Your task to perform on an android device: add a label to a message in the gmail app Image 0: 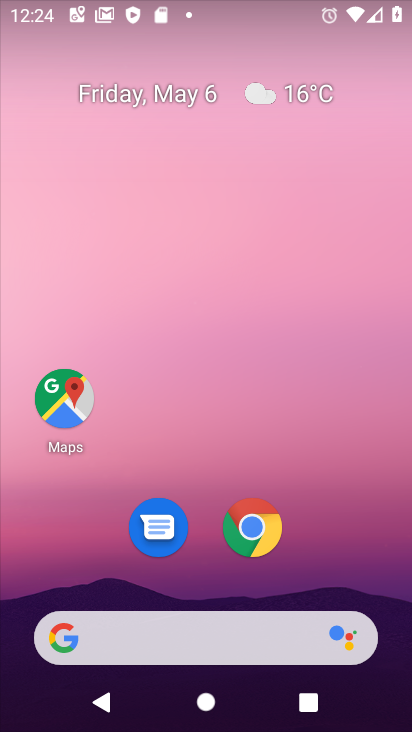
Step 0: drag from (337, 511) to (54, 136)
Your task to perform on an android device: add a label to a message in the gmail app Image 1: 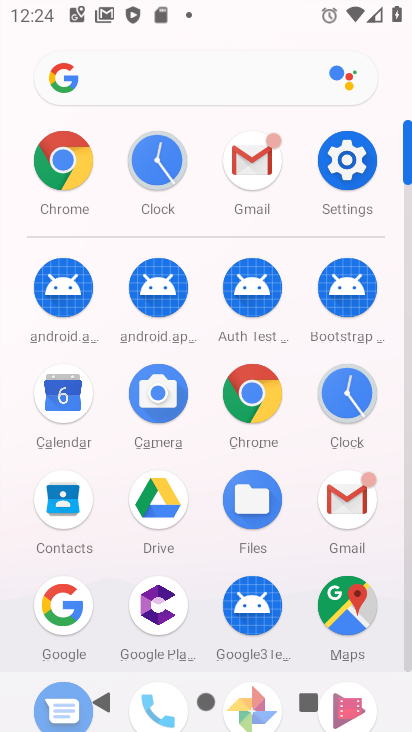
Step 1: click (354, 498)
Your task to perform on an android device: add a label to a message in the gmail app Image 2: 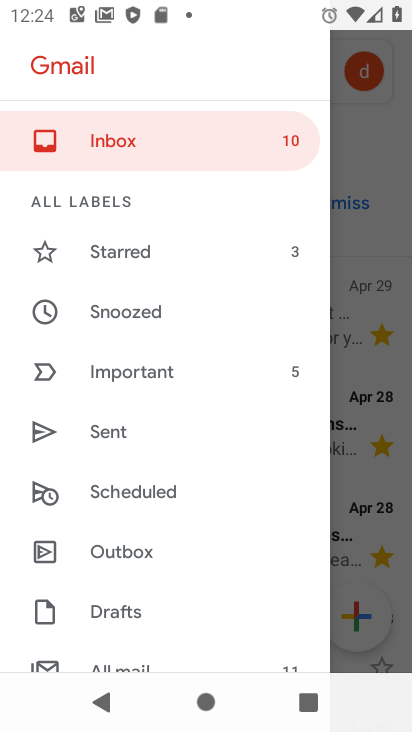
Step 2: click (366, 355)
Your task to perform on an android device: add a label to a message in the gmail app Image 3: 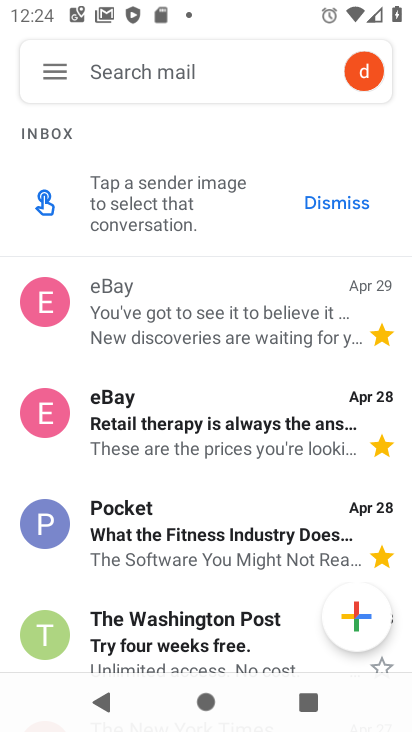
Step 3: click (170, 436)
Your task to perform on an android device: add a label to a message in the gmail app Image 4: 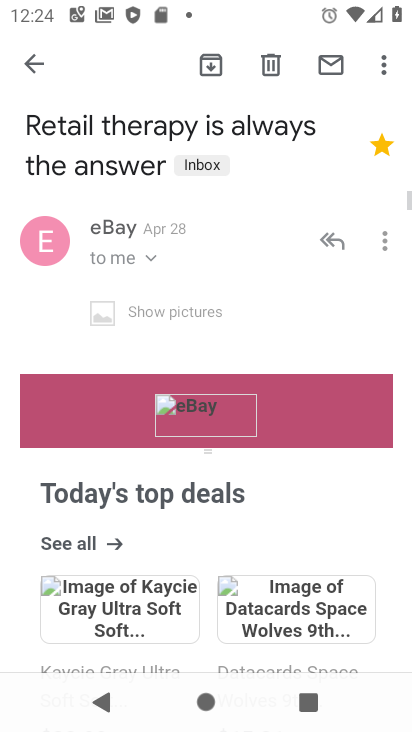
Step 4: click (384, 68)
Your task to perform on an android device: add a label to a message in the gmail app Image 5: 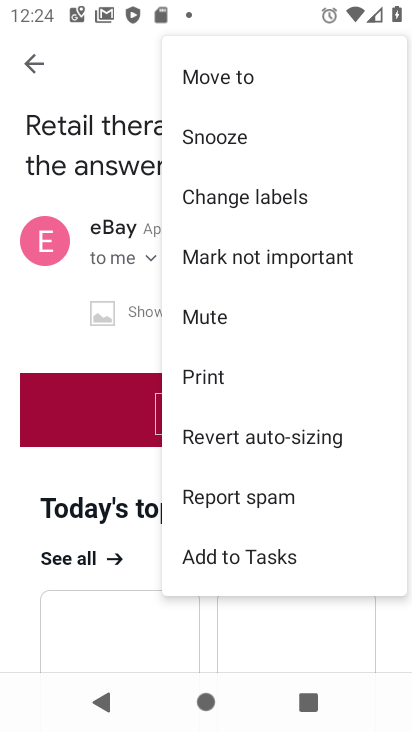
Step 5: click (214, 146)
Your task to perform on an android device: add a label to a message in the gmail app Image 6: 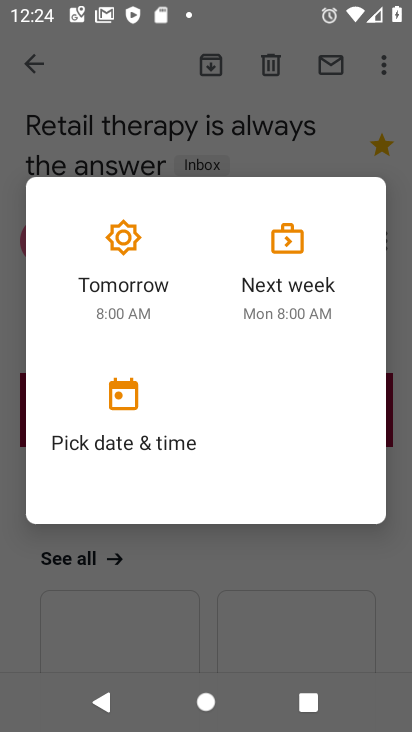
Step 6: click (122, 281)
Your task to perform on an android device: add a label to a message in the gmail app Image 7: 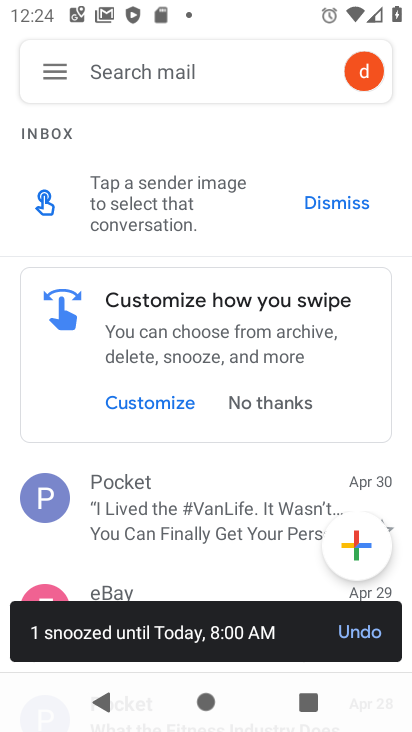
Step 7: task complete